Your task to perform on an android device: install app "Mercado Libre" Image 0: 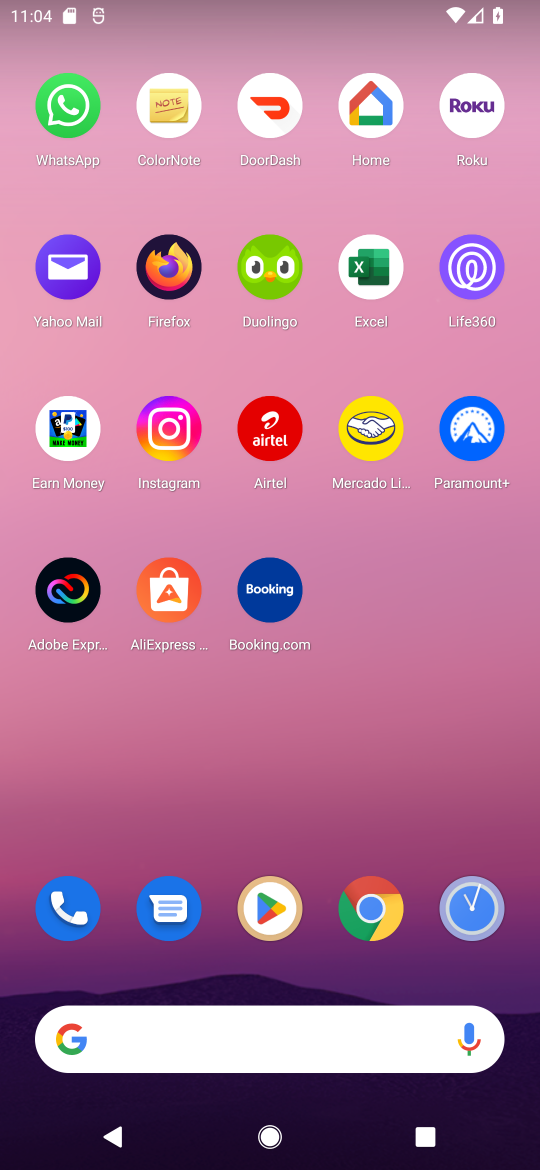
Step 0: click (286, 896)
Your task to perform on an android device: install app "Mercado Libre" Image 1: 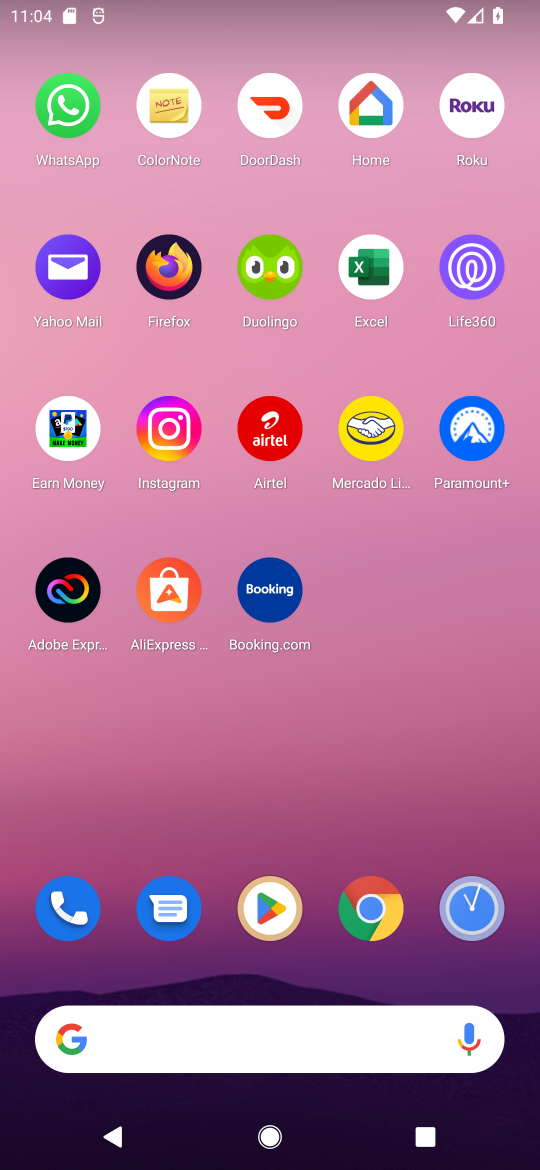
Step 1: click (286, 896)
Your task to perform on an android device: install app "Mercado Libre" Image 2: 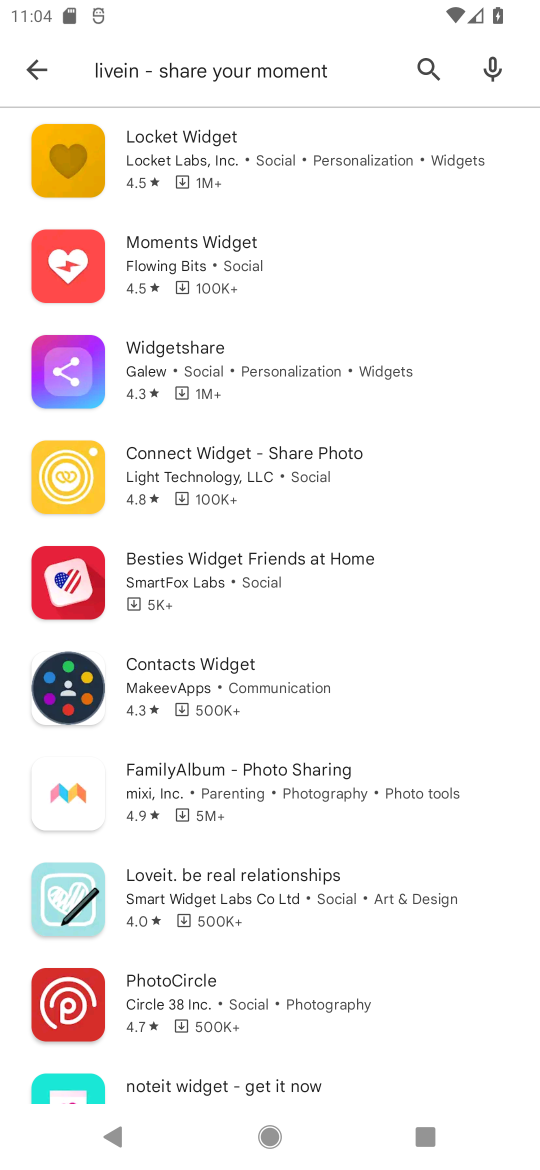
Step 2: click (42, 64)
Your task to perform on an android device: install app "Mercado Libre" Image 3: 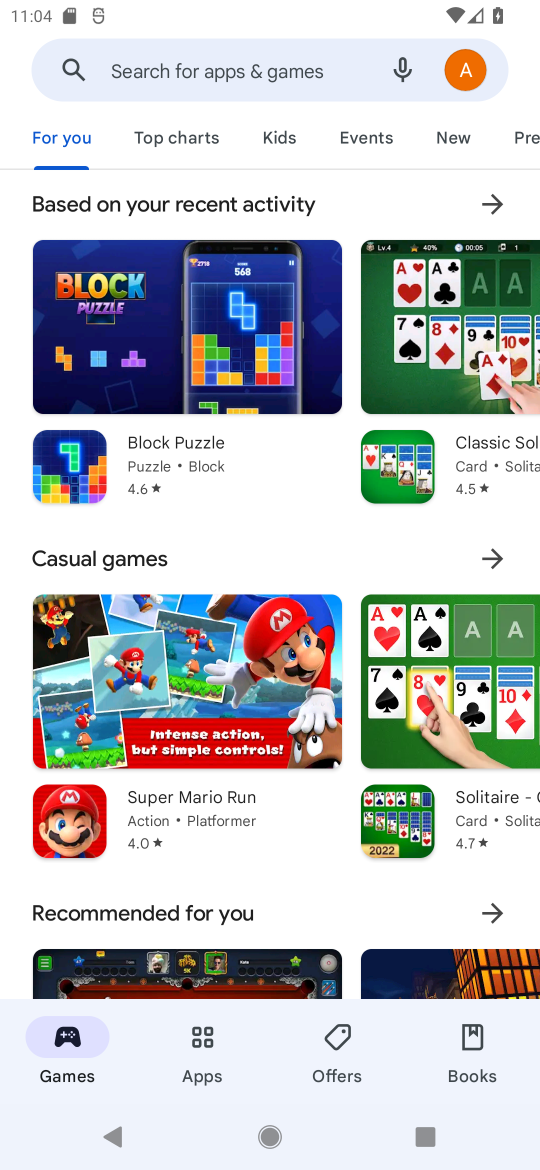
Step 3: click (102, 66)
Your task to perform on an android device: install app "Mercado Libre" Image 4: 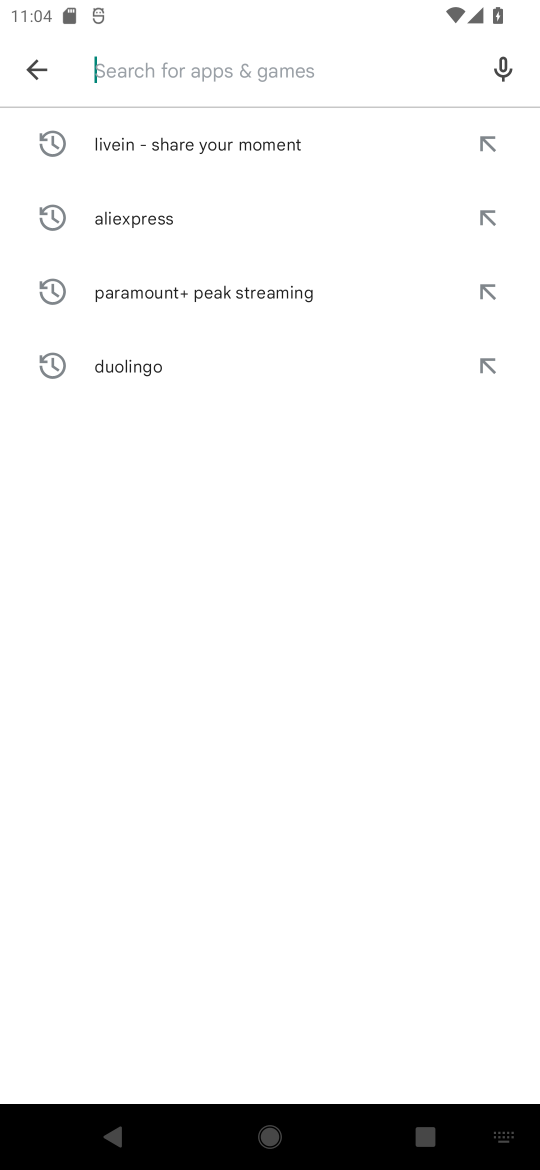
Step 4: type "Mercado Libre"
Your task to perform on an android device: install app "Mercado Libre" Image 5: 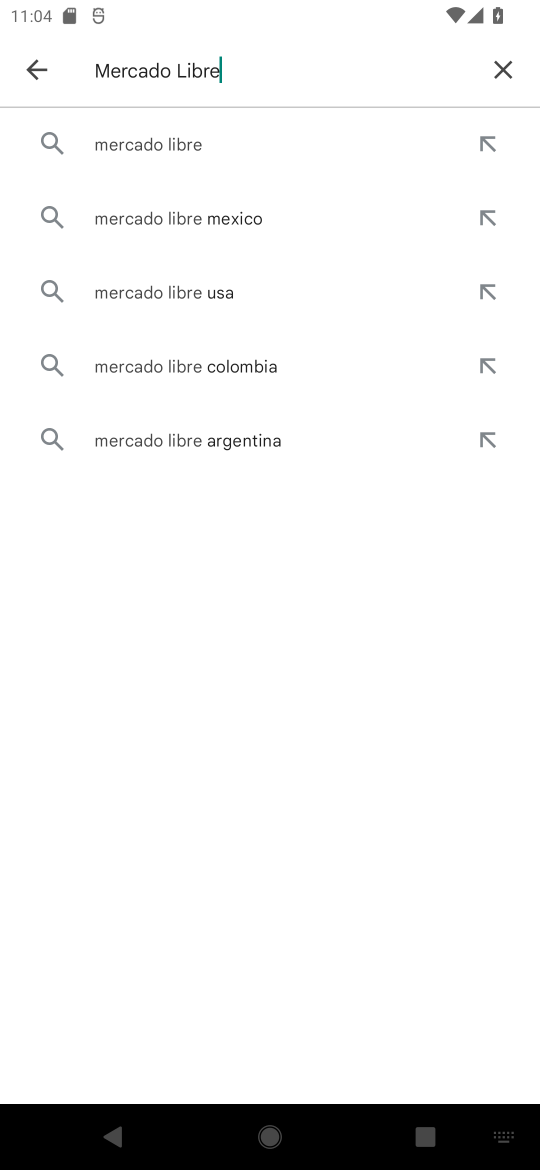
Step 5: click (156, 125)
Your task to perform on an android device: install app "Mercado Libre" Image 6: 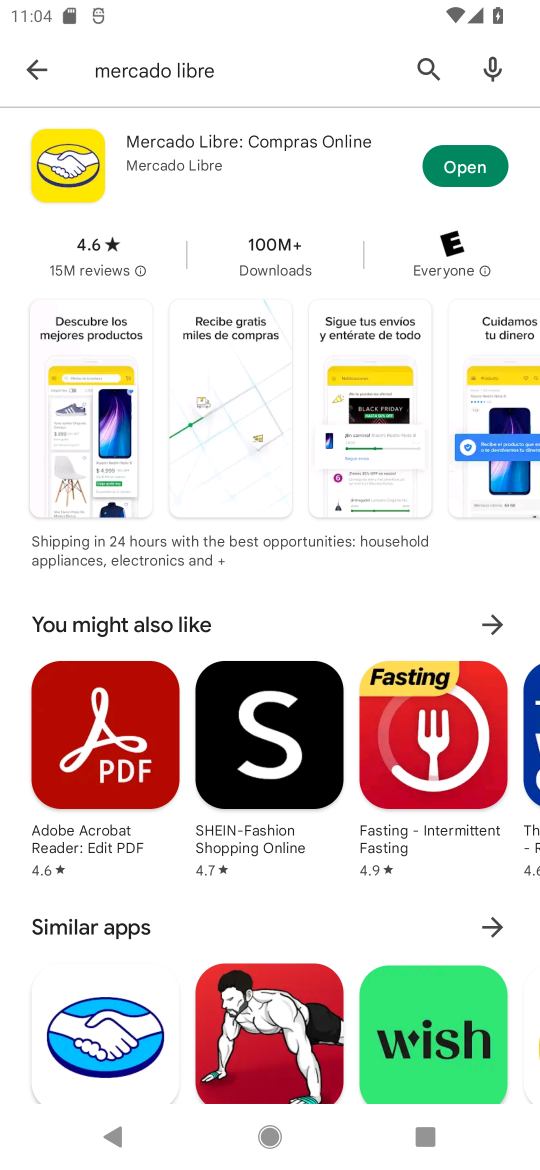
Step 6: task complete